Your task to perform on an android device: Show me productivity apps on the Play Store Image 0: 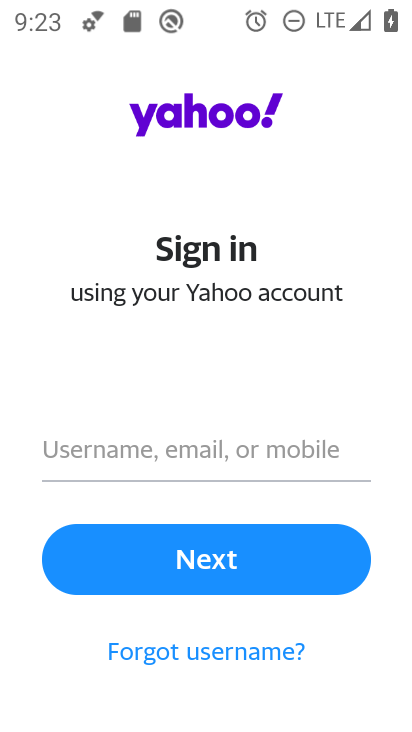
Step 0: press home button
Your task to perform on an android device: Show me productivity apps on the Play Store Image 1: 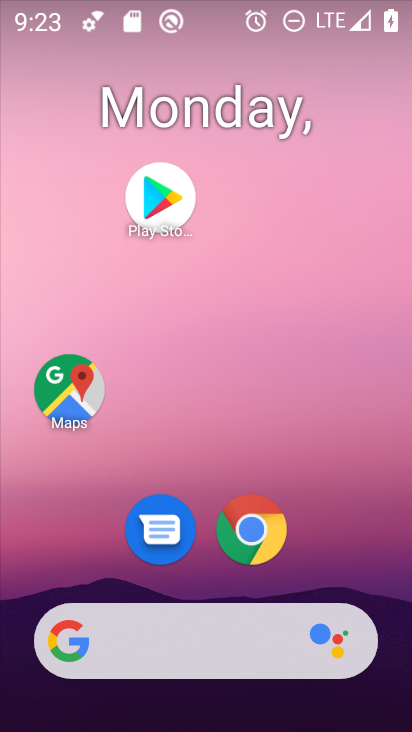
Step 1: drag from (312, 478) to (232, 65)
Your task to perform on an android device: Show me productivity apps on the Play Store Image 2: 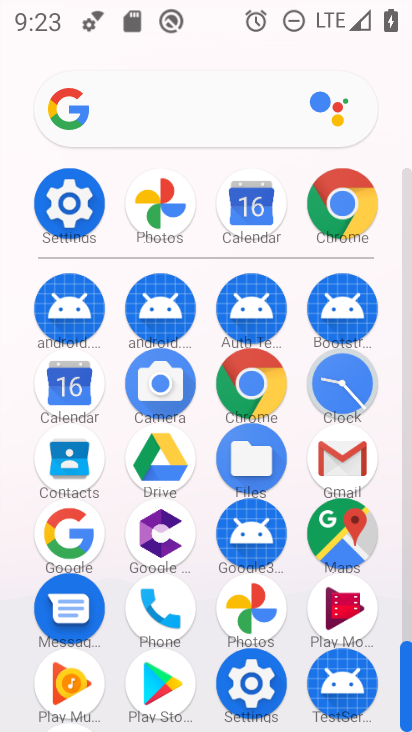
Step 2: click (156, 671)
Your task to perform on an android device: Show me productivity apps on the Play Store Image 3: 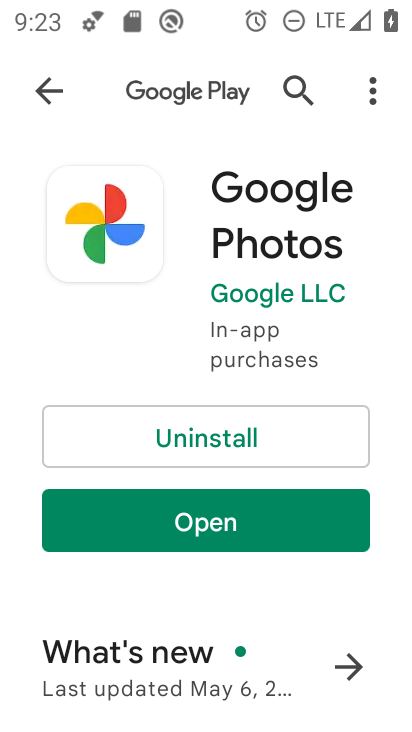
Step 3: click (45, 85)
Your task to perform on an android device: Show me productivity apps on the Play Store Image 4: 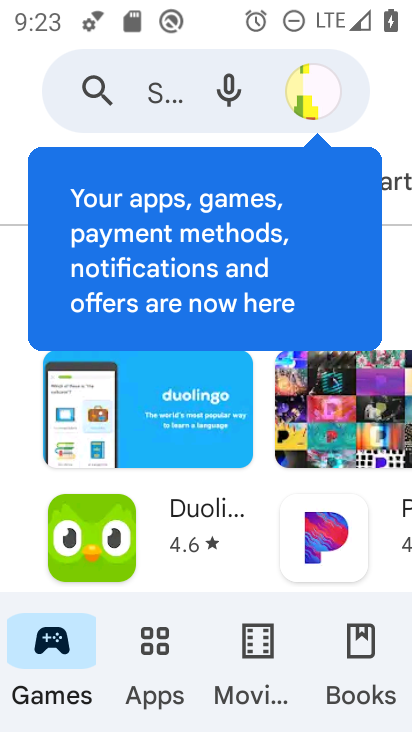
Step 4: click (155, 658)
Your task to perform on an android device: Show me productivity apps on the Play Store Image 5: 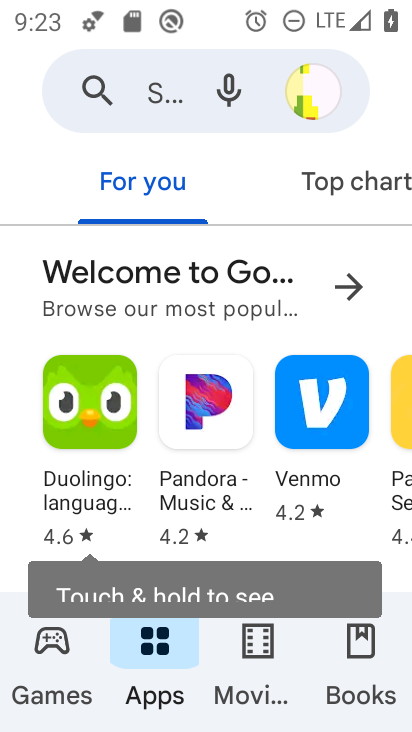
Step 5: task complete